Your task to perform on an android device: Open eBay Image 0: 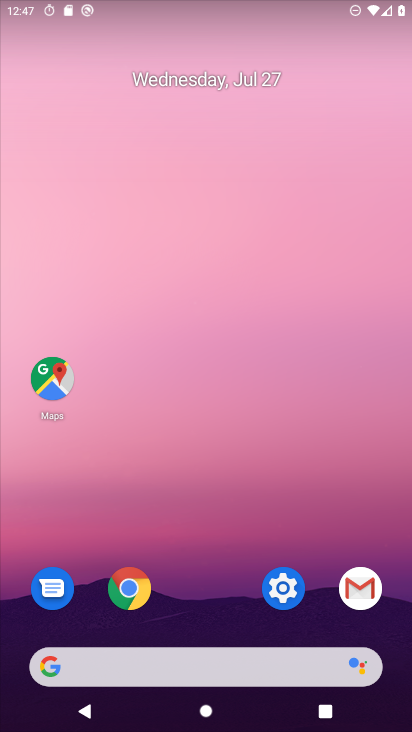
Step 0: drag from (255, 604) to (174, 6)
Your task to perform on an android device: Open eBay Image 1: 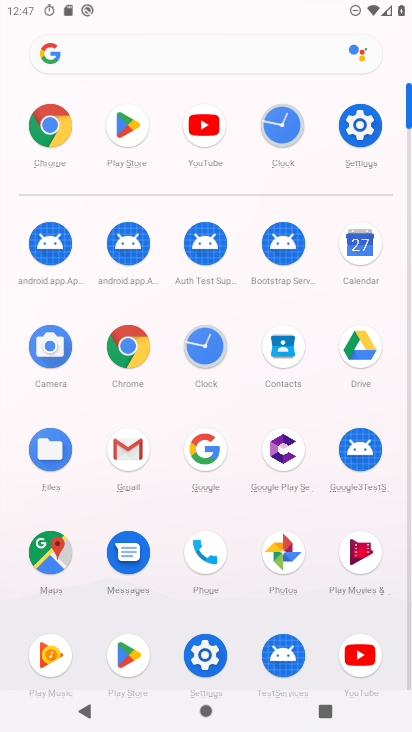
Step 1: click (48, 140)
Your task to perform on an android device: Open eBay Image 2: 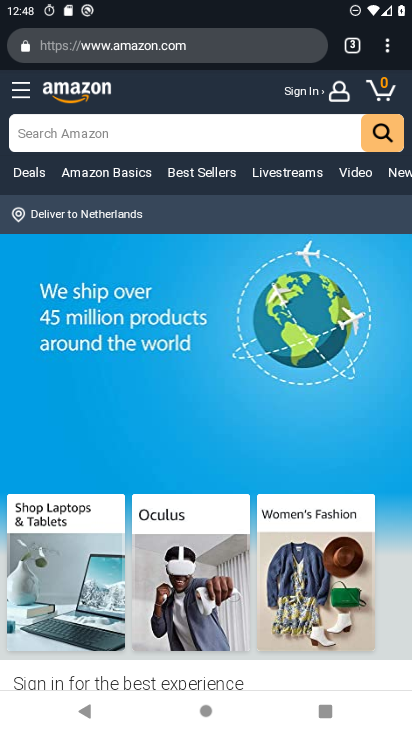
Step 2: click (356, 47)
Your task to perform on an android device: Open eBay Image 3: 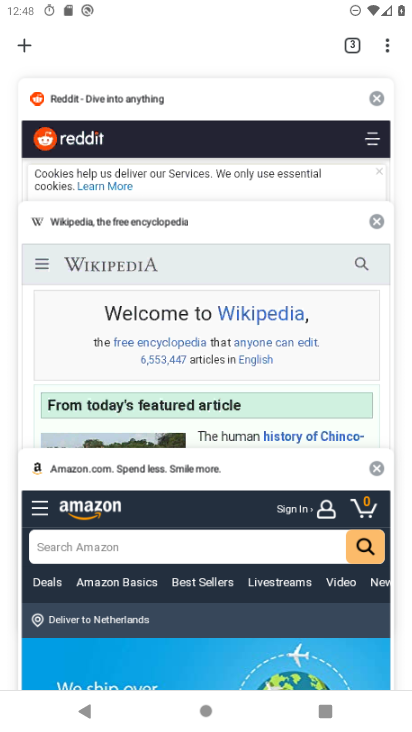
Step 3: click (27, 46)
Your task to perform on an android device: Open eBay Image 4: 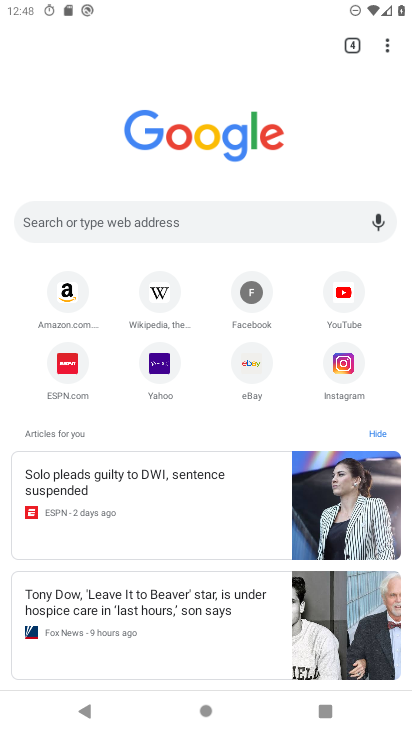
Step 4: click (253, 379)
Your task to perform on an android device: Open eBay Image 5: 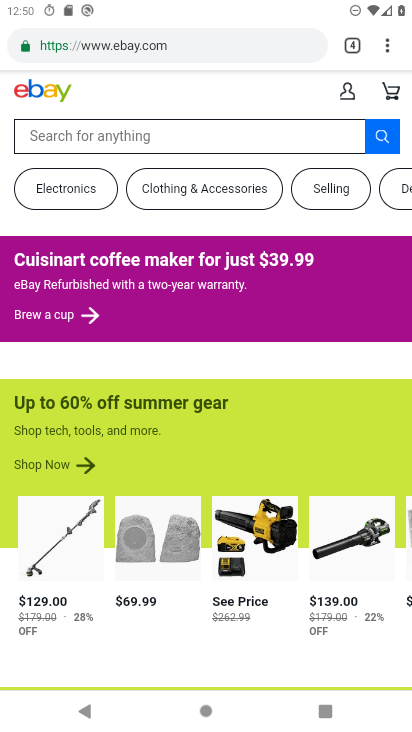
Step 5: task complete